Your task to perform on an android device: see sites visited before in the chrome app Image 0: 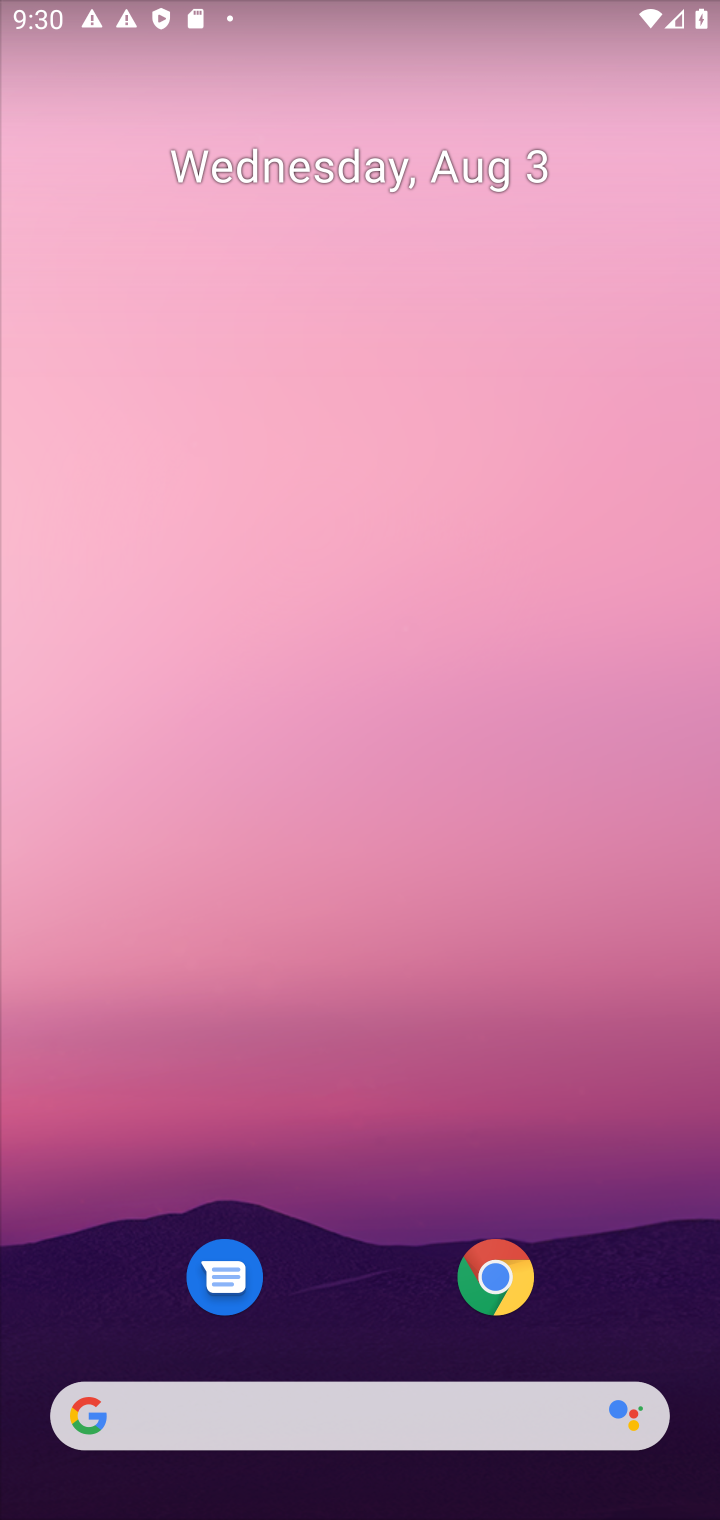
Step 0: drag from (649, 1273) to (431, 173)
Your task to perform on an android device: see sites visited before in the chrome app Image 1: 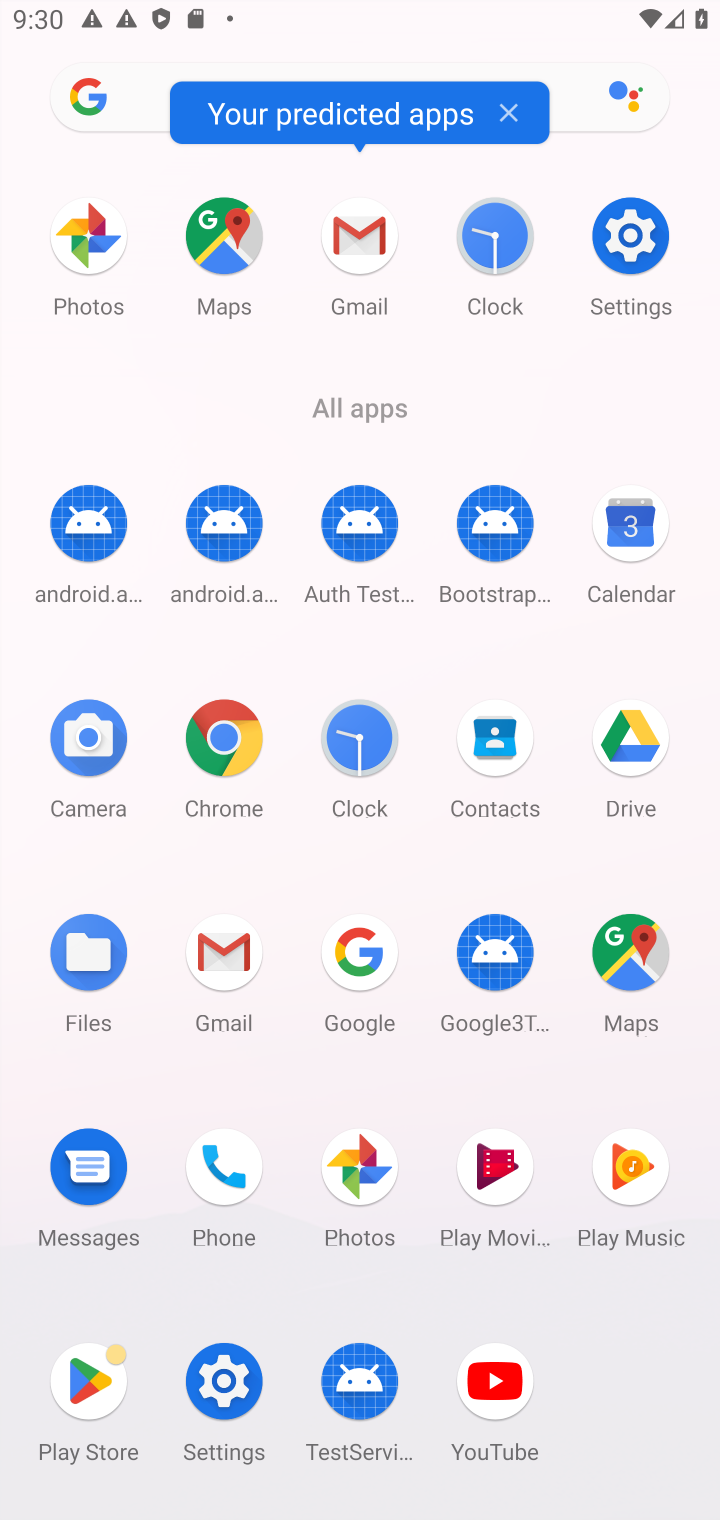
Step 1: click (228, 726)
Your task to perform on an android device: see sites visited before in the chrome app Image 2: 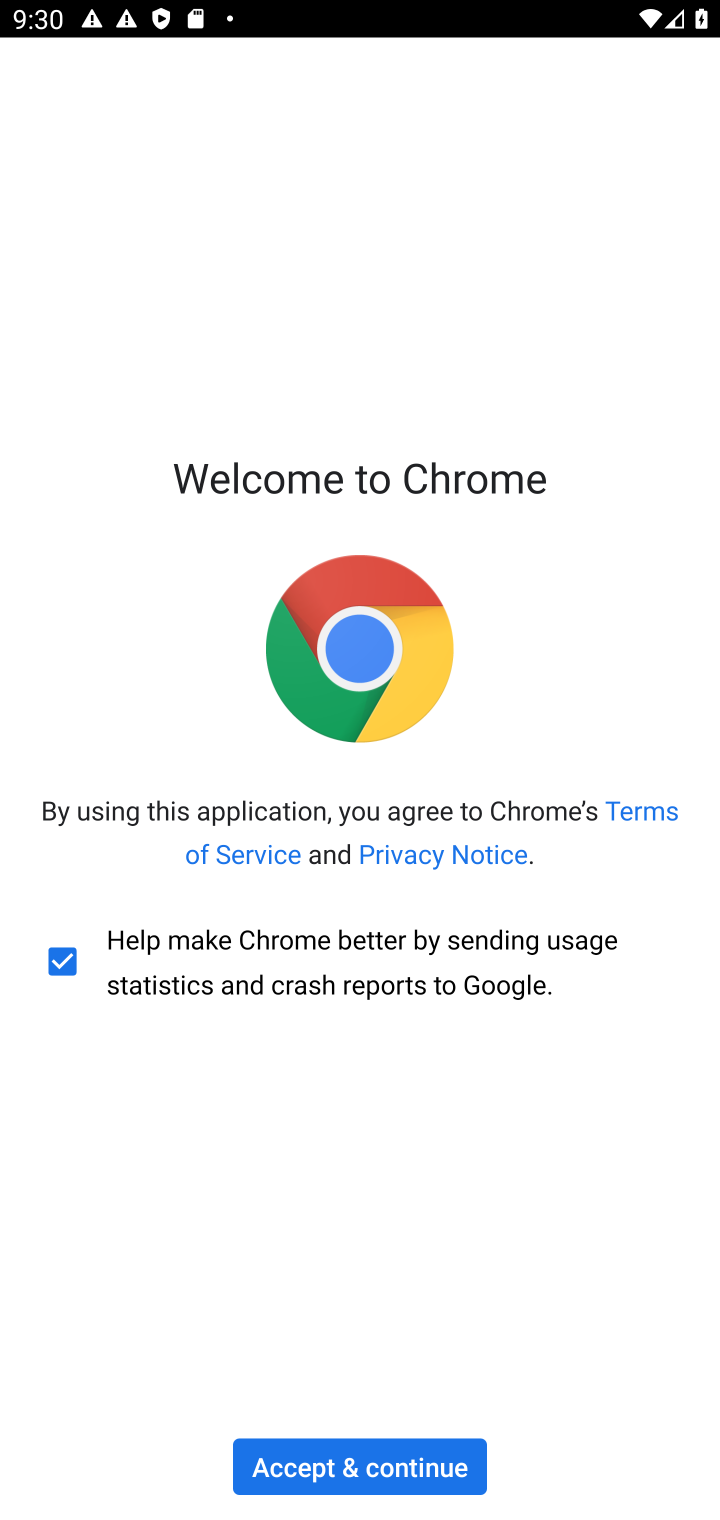
Step 2: click (420, 1452)
Your task to perform on an android device: see sites visited before in the chrome app Image 3: 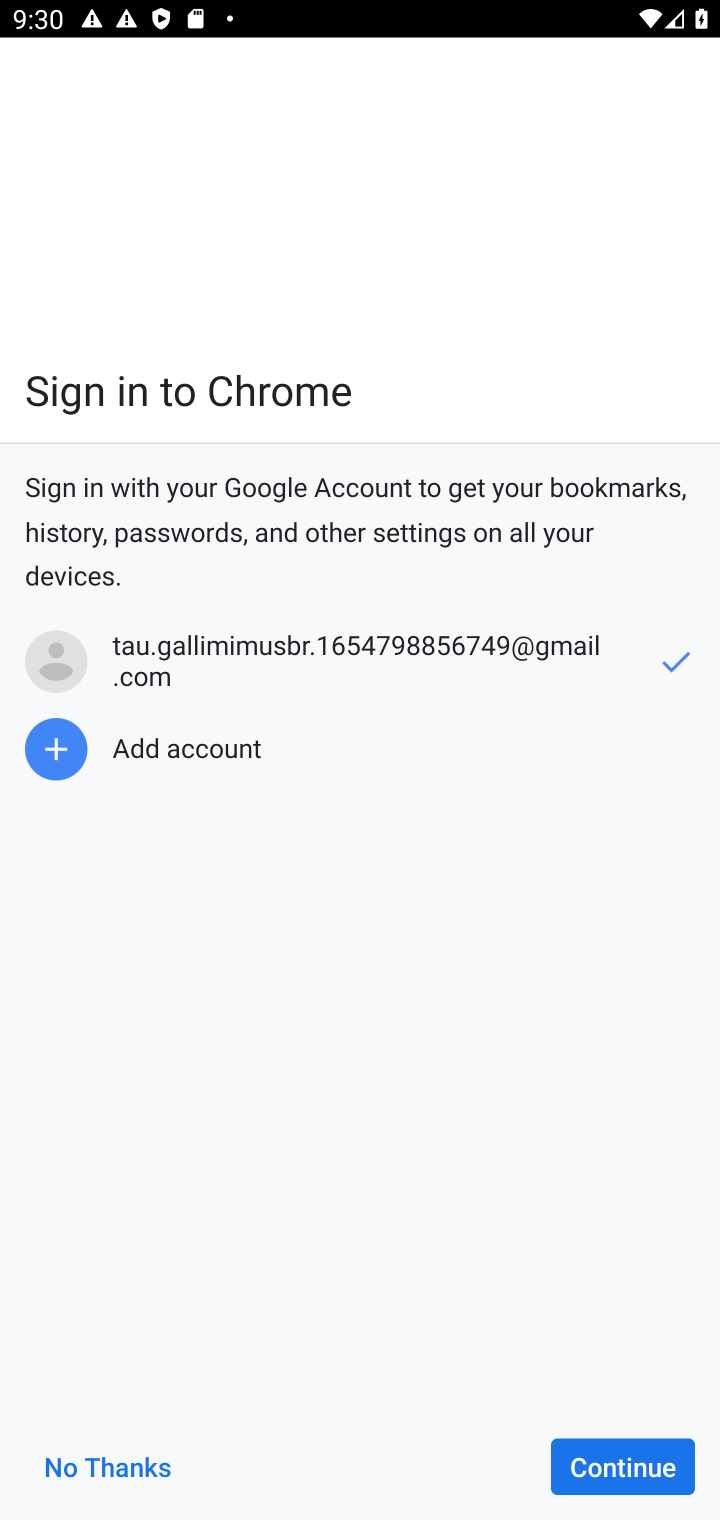
Step 3: click (558, 1476)
Your task to perform on an android device: see sites visited before in the chrome app Image 4: 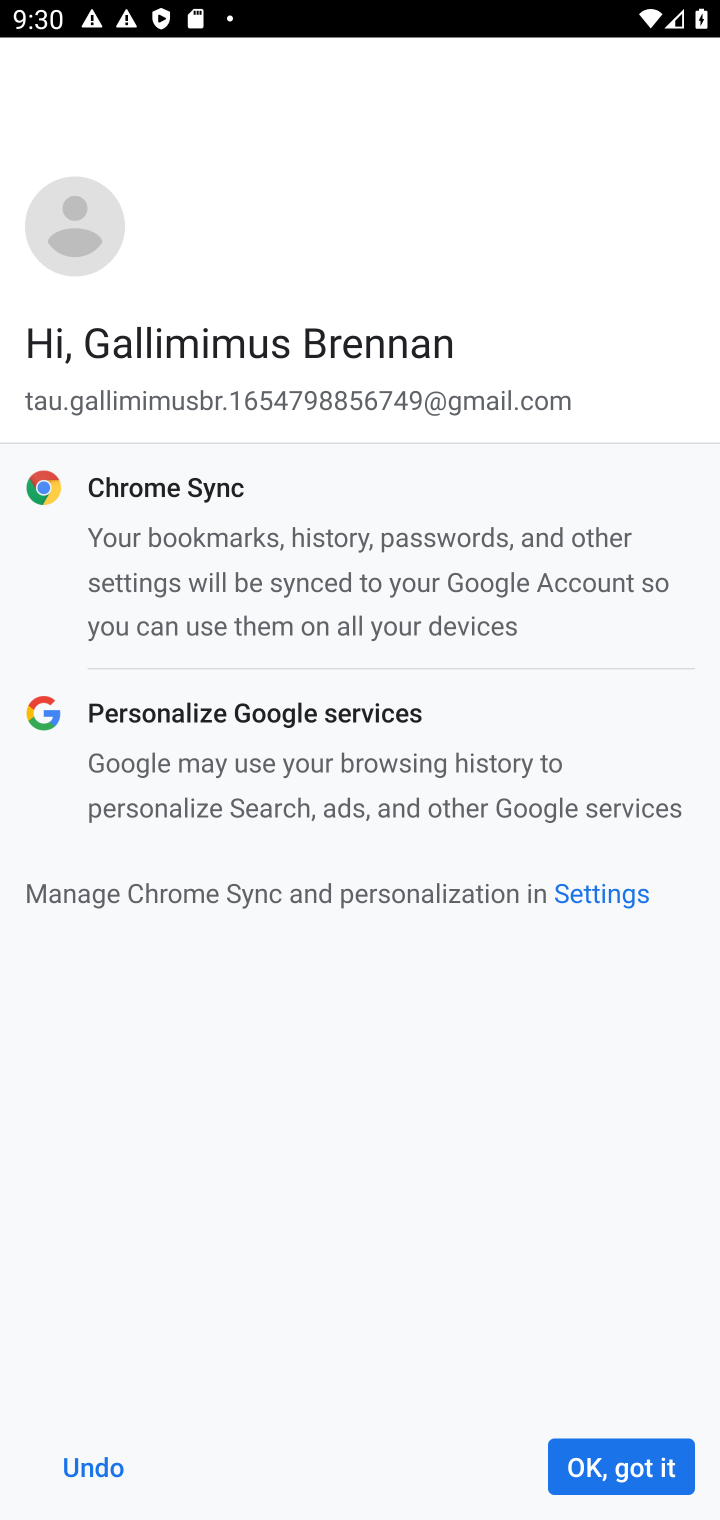
Step 4: click (573, 1459)
Your task to perform on an android device: see sites visited before in the chrome app Image 5: 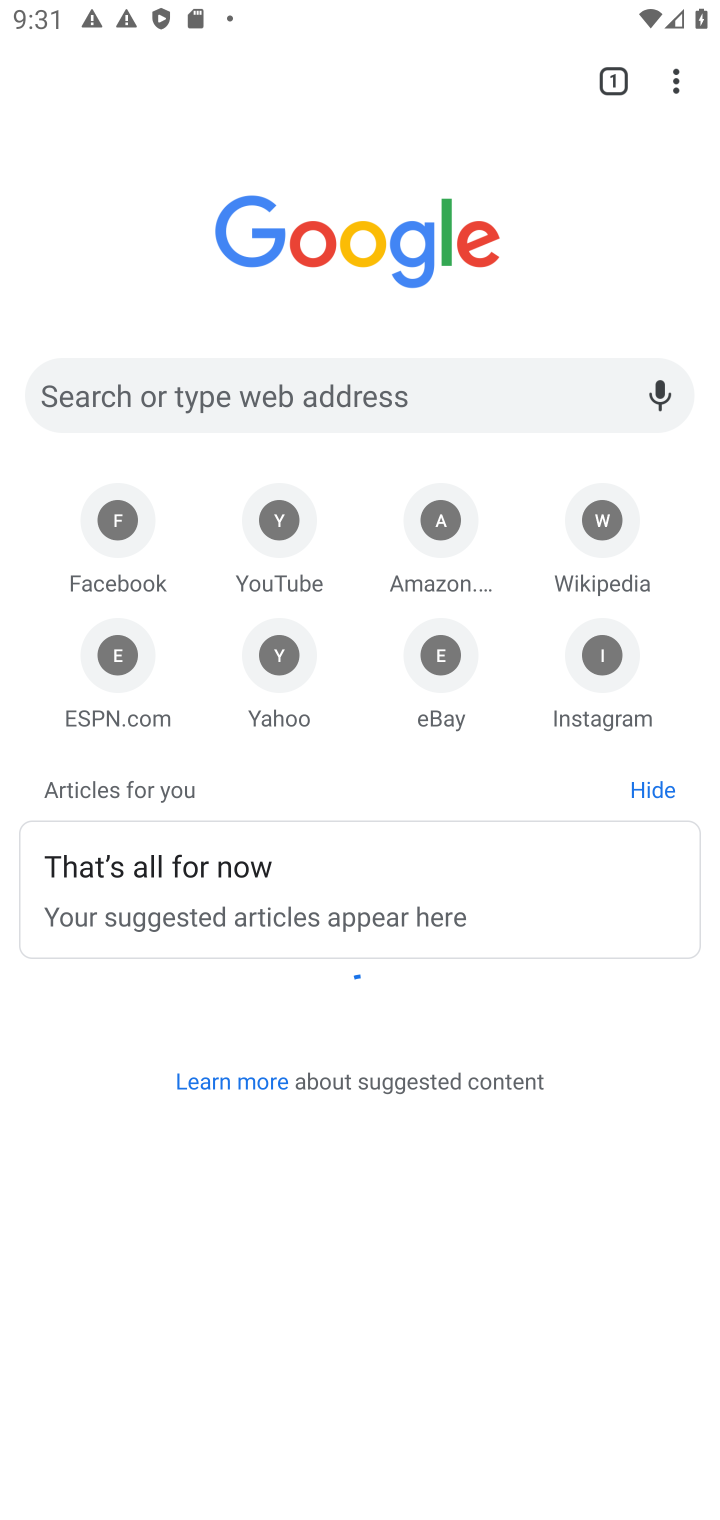
Step 5: click (686, 85)
Your task to perform on an android device: see sites visited before in the chrome app Image 6: 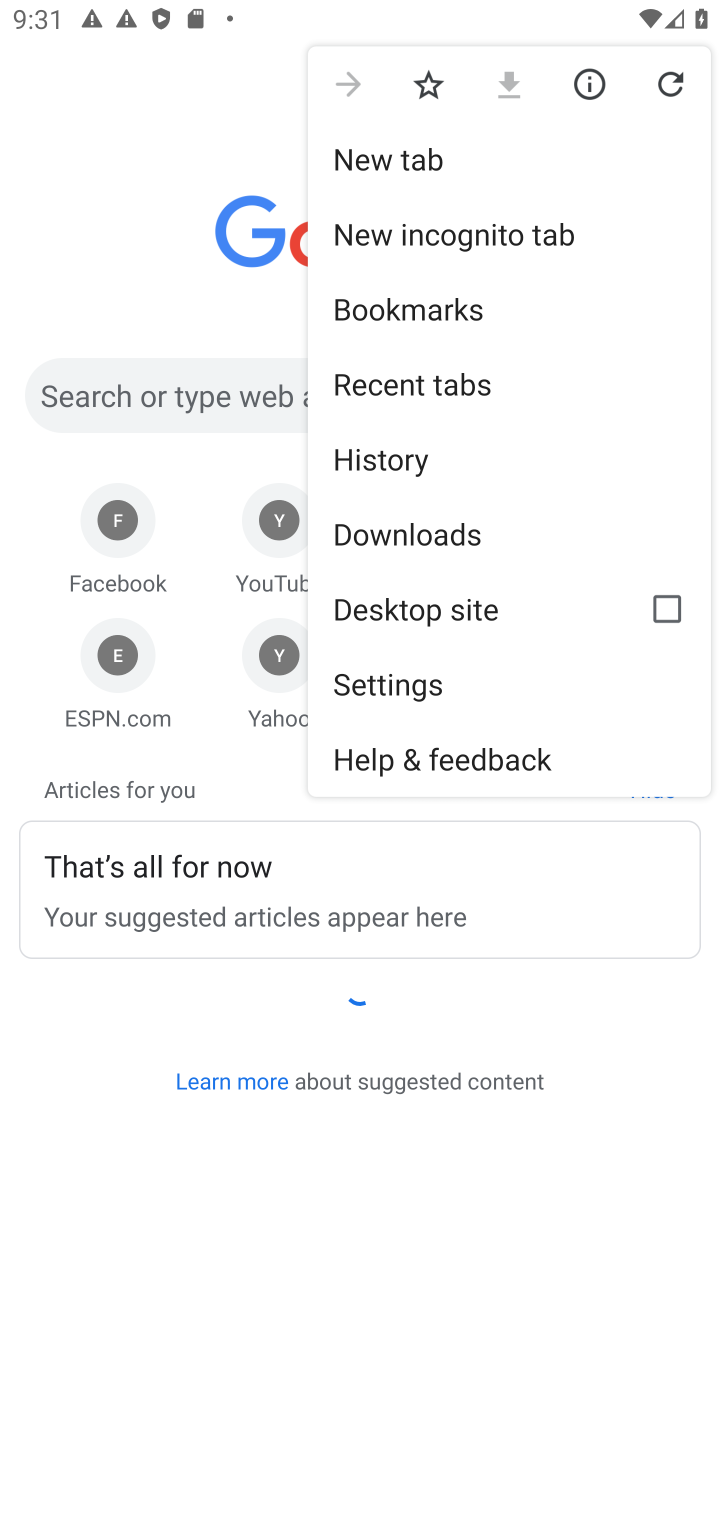
Step 6: click (528, 463)
Your task to perform on an android device: see sites visited before in the chrome app Image 7: 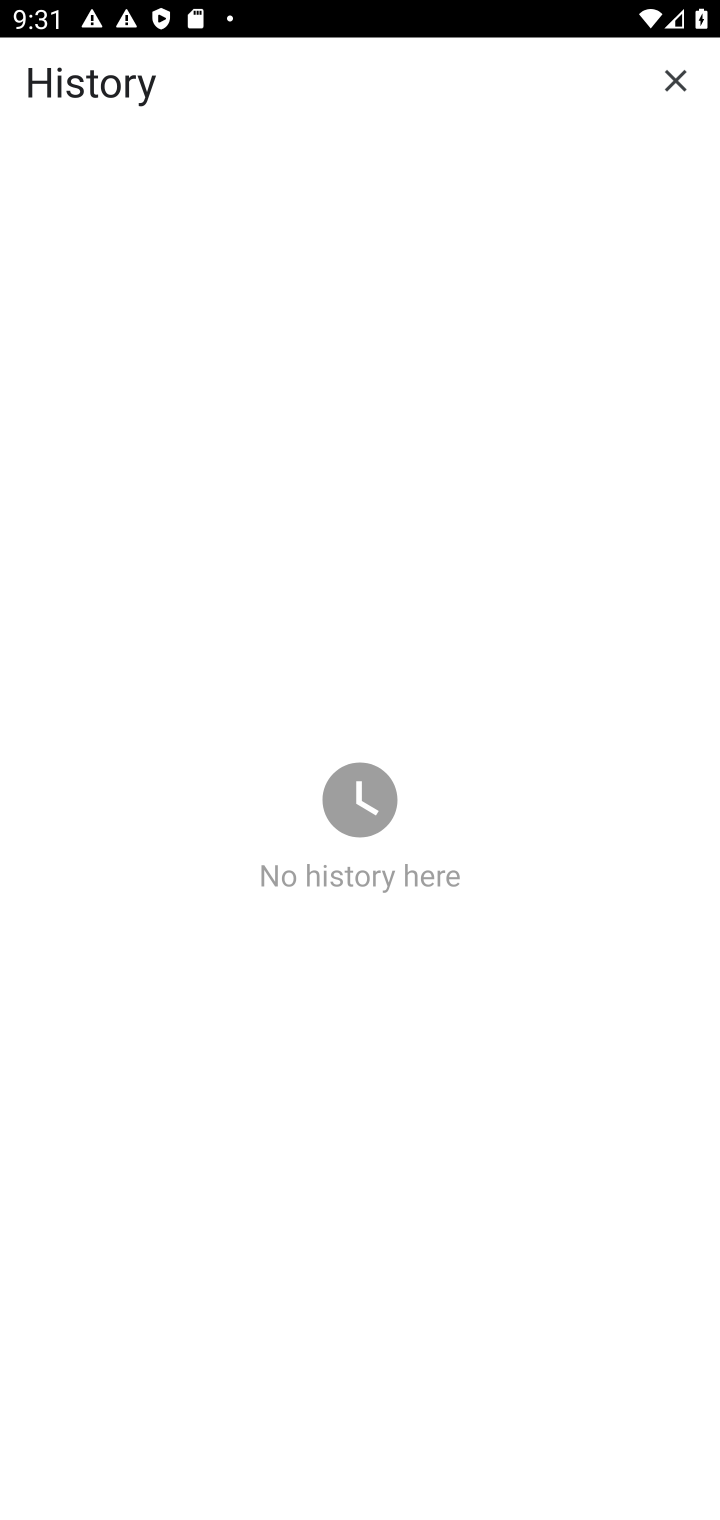
Step 7: task complete